Your task to perform on an android device: Go to Yahoo.com Image 0: 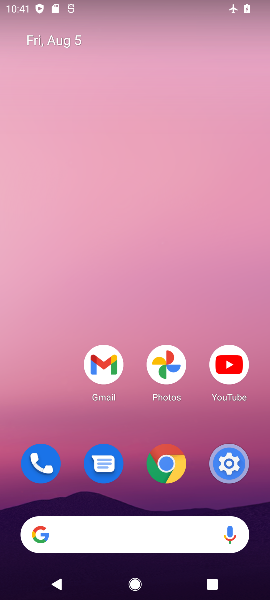
Step 0: drag from (117, 527) to (116, 170)
Your task to perform on an android device: Go to Yahoo.com Image 1: 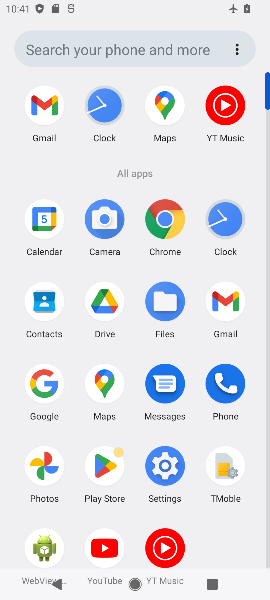
Step 1: click (156, 234)
Your task to perform on an android device: Go to Yahoo.com Image 2: 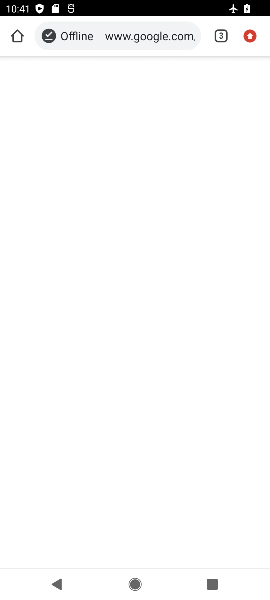
Step 2: click (257, 34)
Your task to perform on an android device: Go to Yahoo.com Image 3: 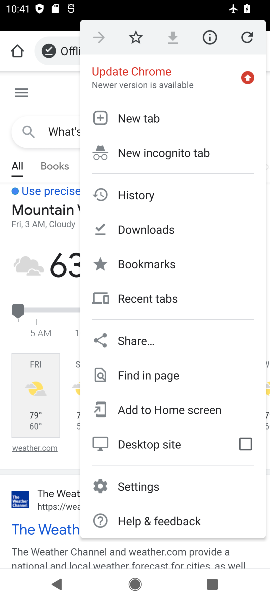
Step 3: click (156, 98)
Your task to perform on an android device: Go to Yahoo.com Image 4: 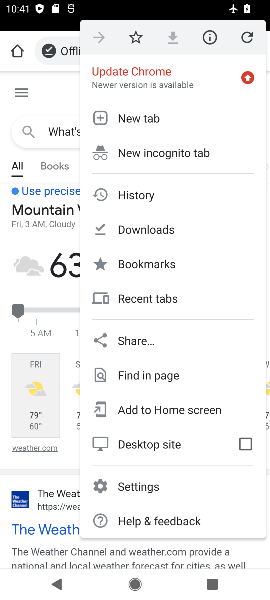
Step 4: click (152, 107)
Your task to perform on an android device: Go to Yahoo.com Image 5: 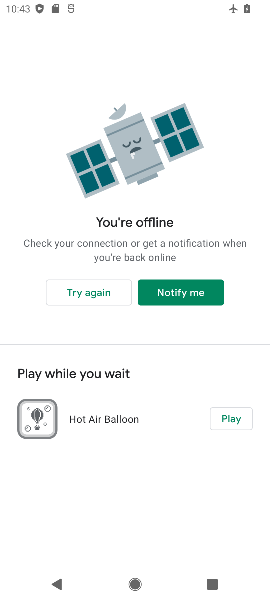
Step 5: task complete